Your task to perform on an android device: toggle notifications settings in the gmail app Image 0: 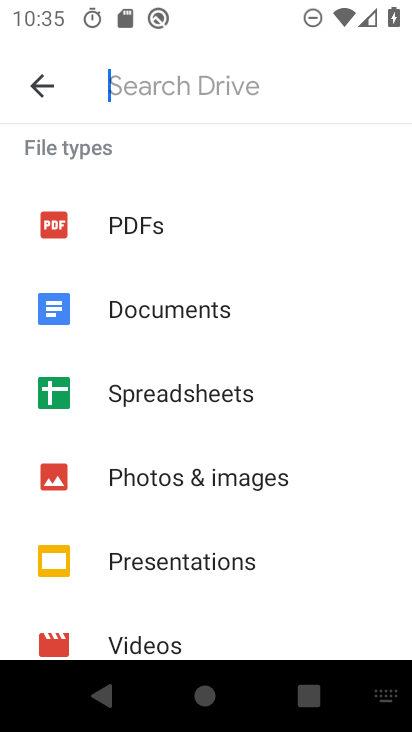
Step 0: press home button
Your task to perform on an android device: toggle notifications settings in the gmail app Image 1: 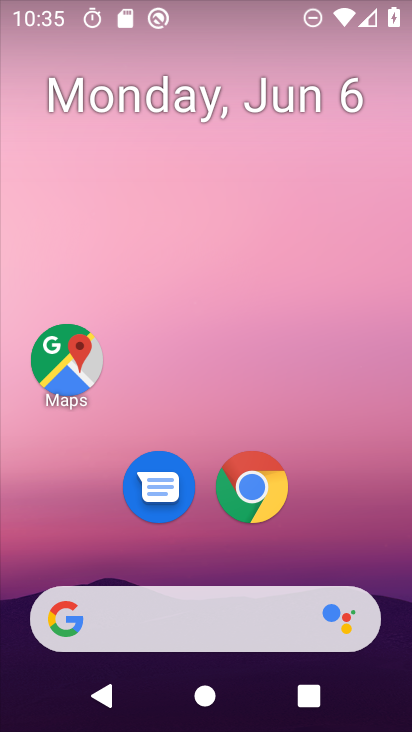
Step 1: drag from (398, 628) to (344, 123)
Your task to perform on an android device: toggle notifications settings in the gmail app Image 2: 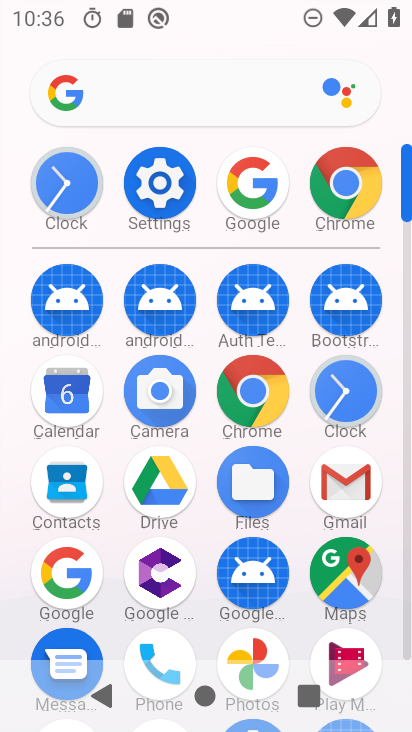
Step 2: click (343, 494)
Your task to perform on an android device: toggle notifications settings in the gmail app Image 3: 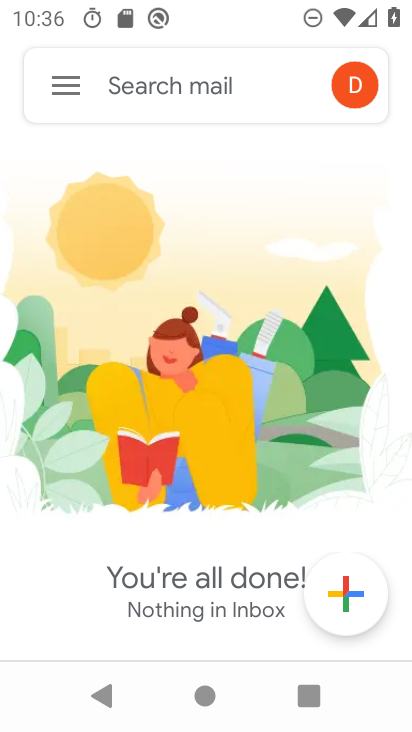
Step 3: click (65, 87)
Your task to perform on an android device: toggle notifications settings in the gmail app Image 4: 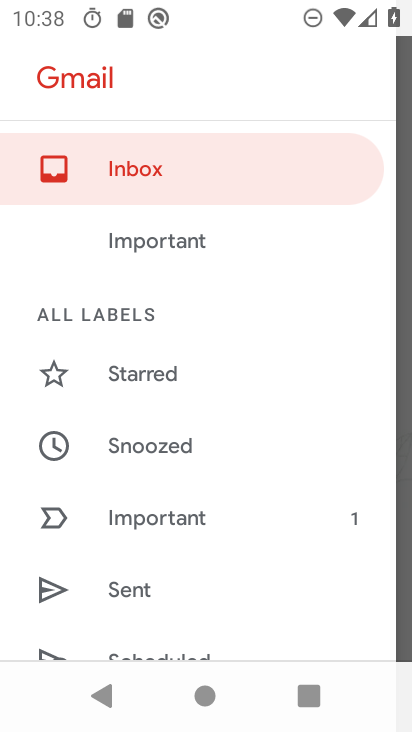
Step 4: drag from (234, 639) to (267, 170)
Your task to perform on an android device: toggle notifications settings in the gmail app Image 5: 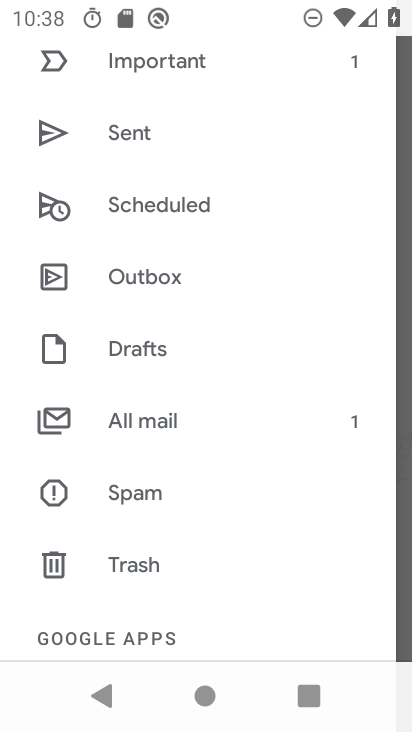
Step 5: drag from (176, 590) to (188, 159)
Your task to perform on an android device: toggle notifications settings in the gmail app Image 6: 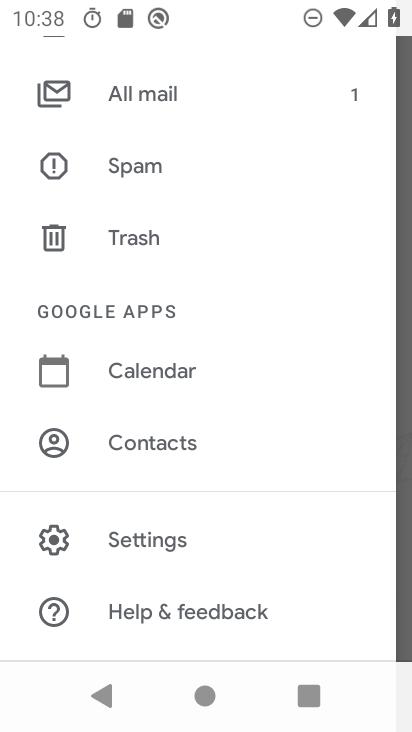
Step 6: click (171, 534)
Your task to perform on an android device: toggle notifications settings in the gmail app Image 7: 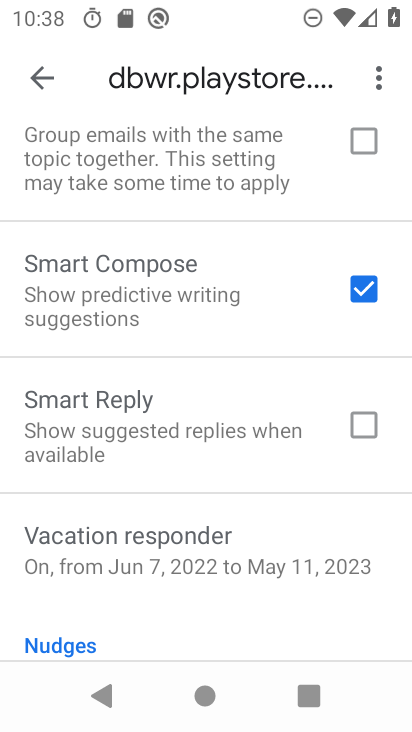
Step 7: drag from (187, 166) to (203, 683)
Your task to perform on an android device: toggle notifications settings in the gmail app Image 8: 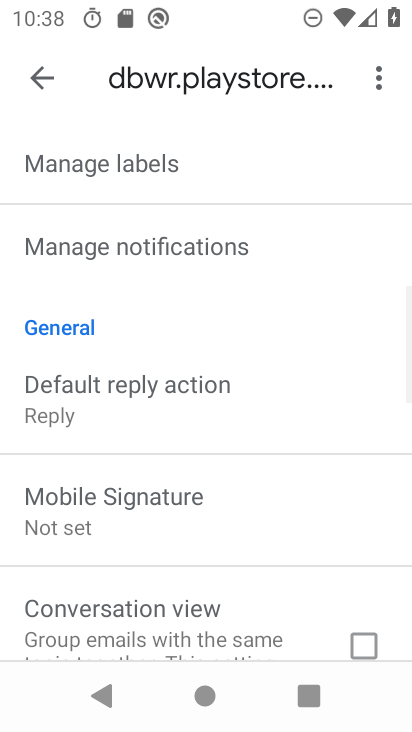
Step 8: drag from (156, 190) to (232, 713)
Your task to perform on an android device: toggle notifications settings in the gmail app Image 9: 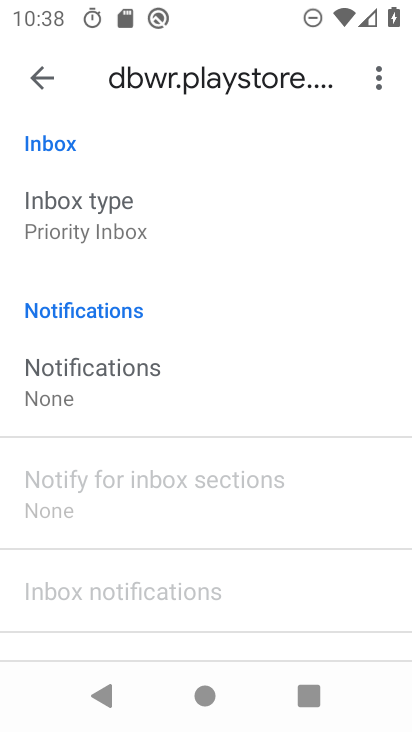
Step 9: click (117, 404)
Your task to perform on an android device: toggle notifications settings in the gmail app Image 10: 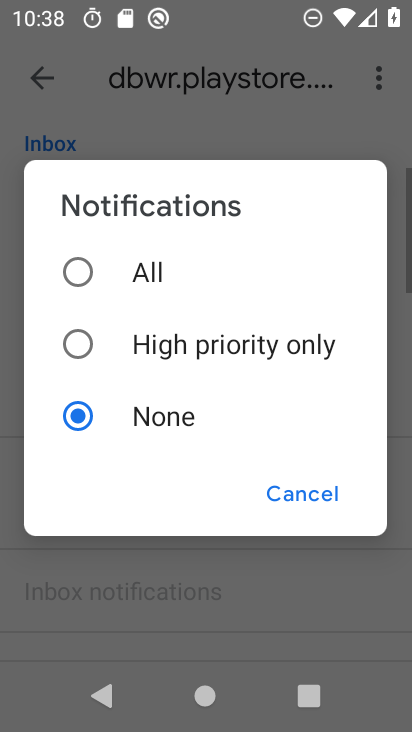
Step 10: click (67, 274)
Your task to perform on an android device: toggle notifications settings in the gmail app Image 11: 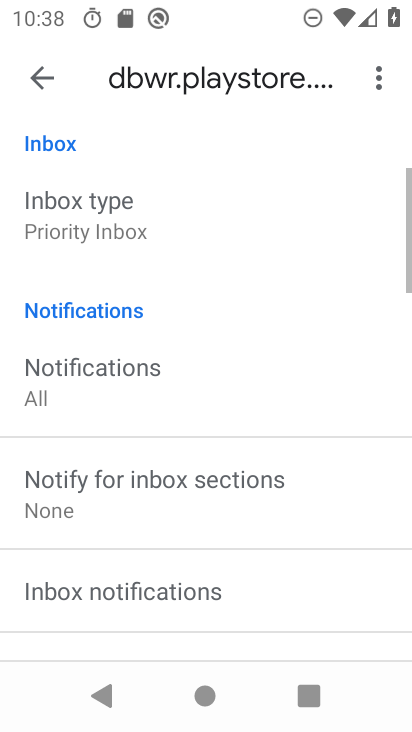
Step 11: task complete